Your task to perform on an android device: Search for hotels in Philadelphia Image 0: 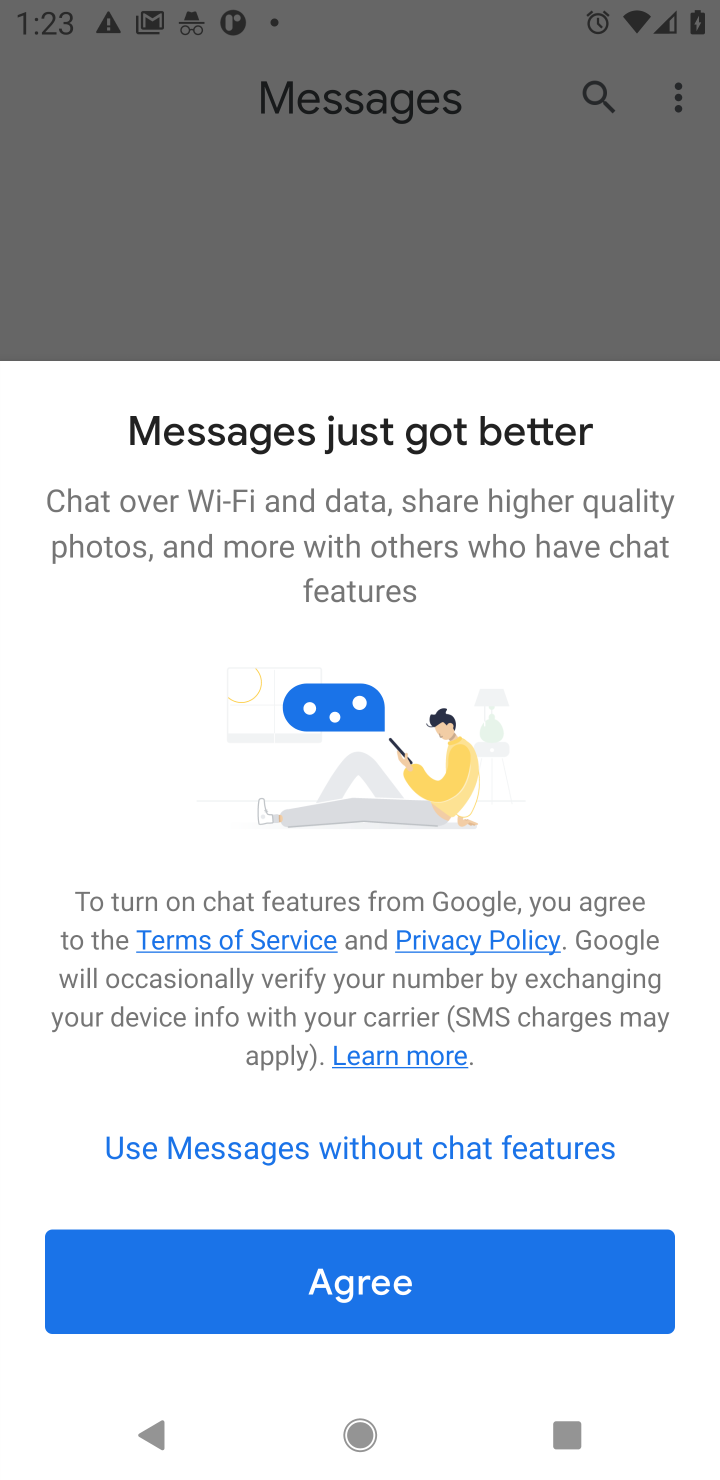
Step 0: press home button
Your task to perform on an android device: Search for hotels in Philadelphia Image 1: 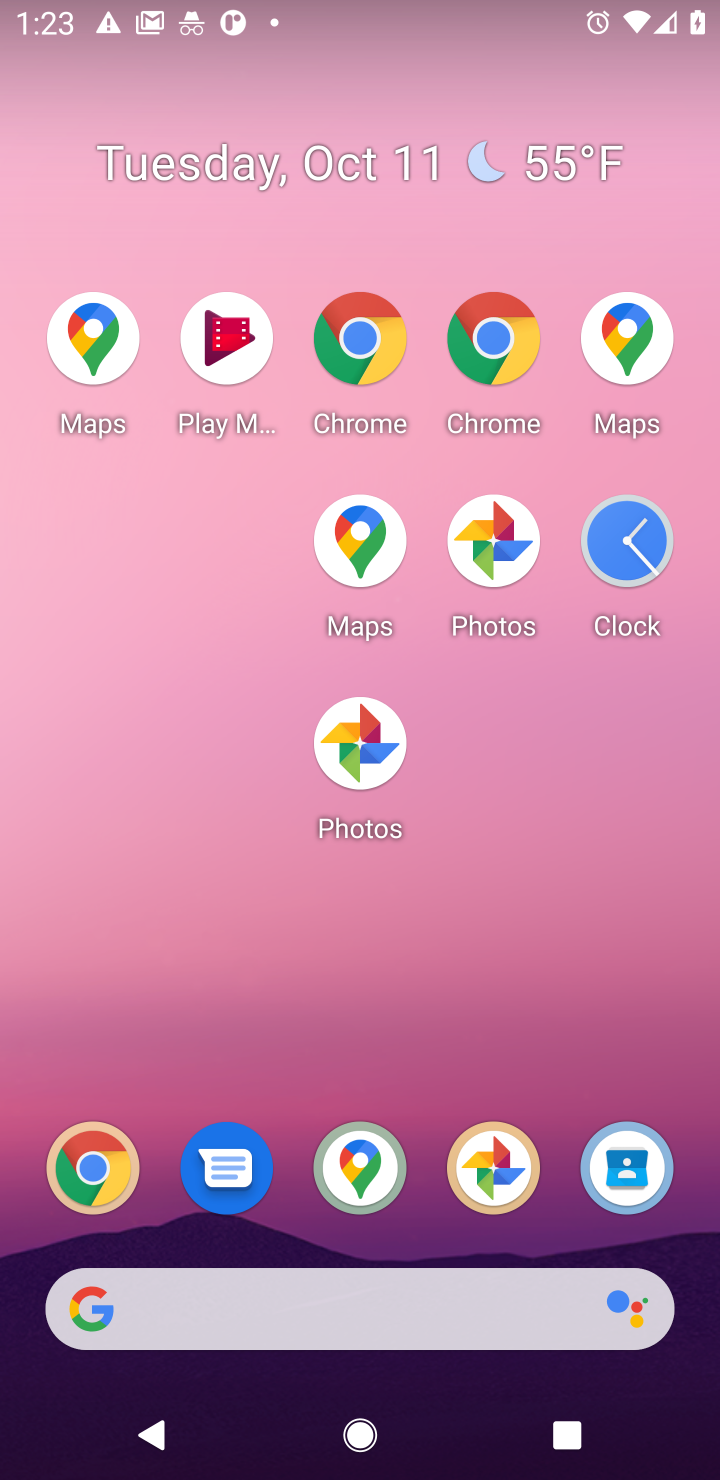
Step 1: click (556, 988)
Your task to perform on an android device: Search for hotels in Philadelphia Image 2: 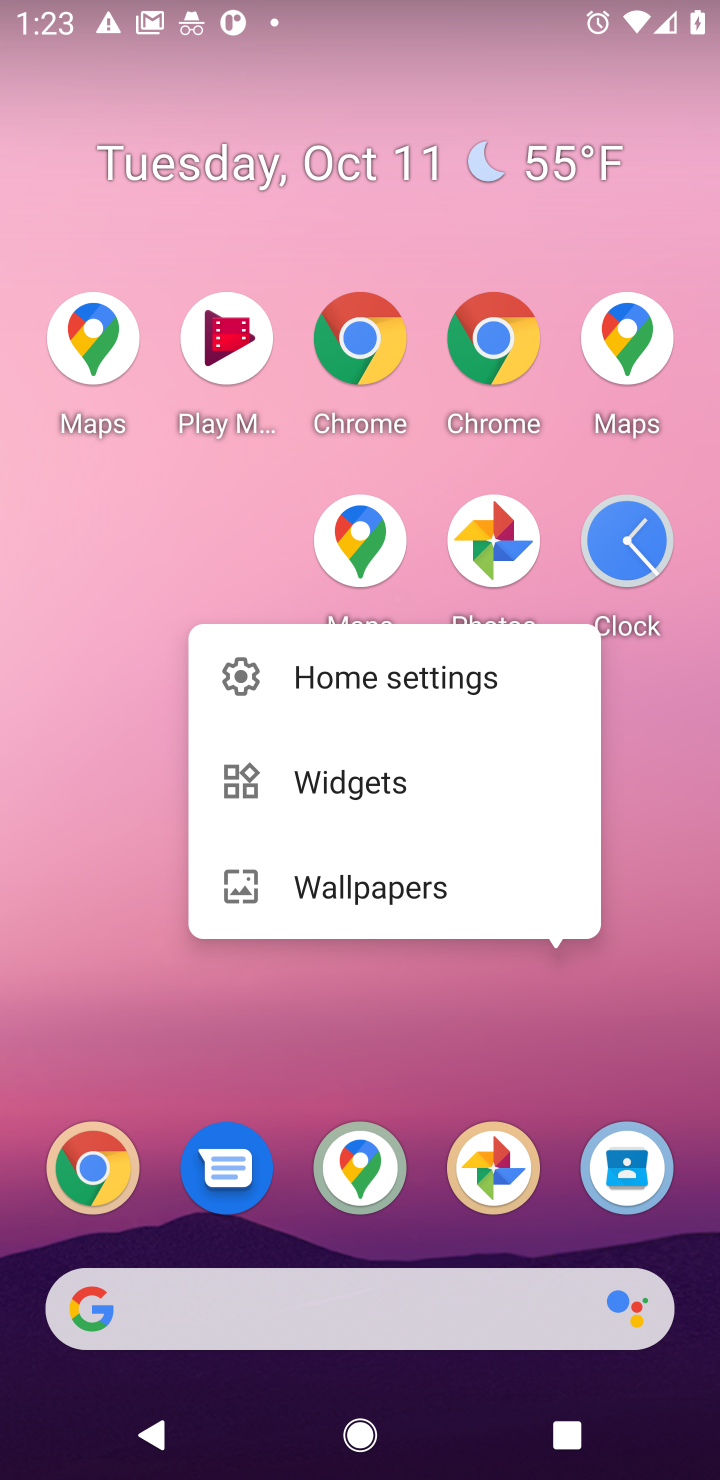
Step 2: click (172, 588)
Your task to perform on an android device: Search for hotels in Philadelphia Image 3: 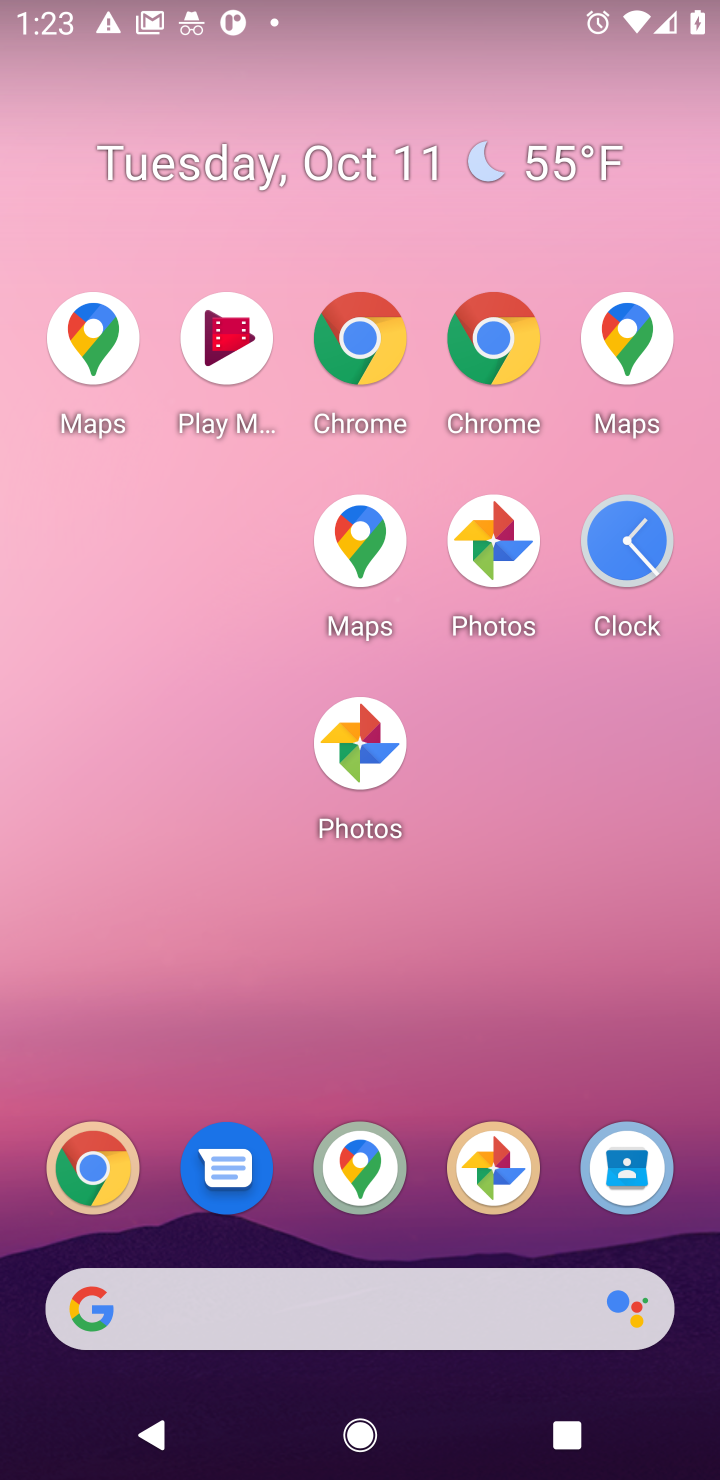
Step 3: drag from (443, 1030) to (596, 66)
Your task to perform on an android device: Search for hotels in Philadelphia Image 4: 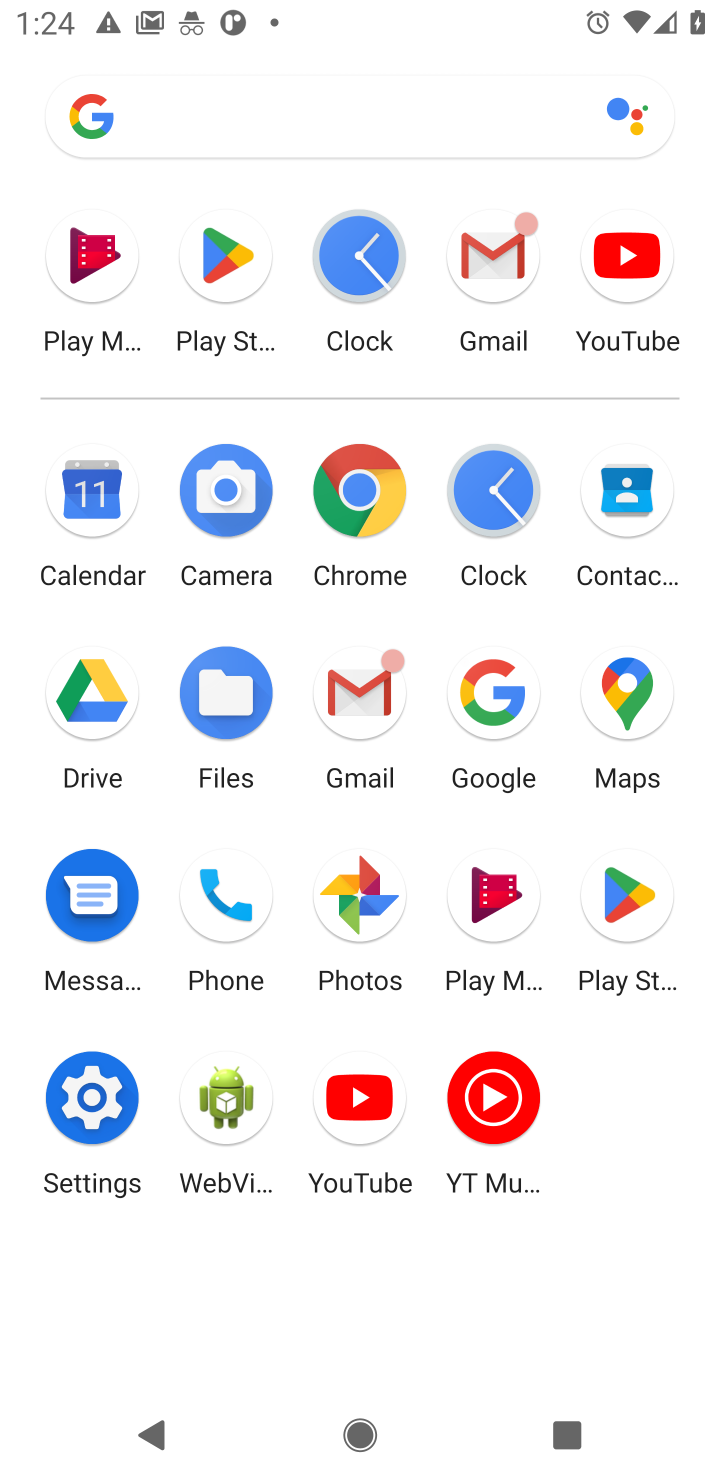
Step 4: click (505, 733)
Your task to perform on an android device: Search for hotels in Philadelphia Image 5: 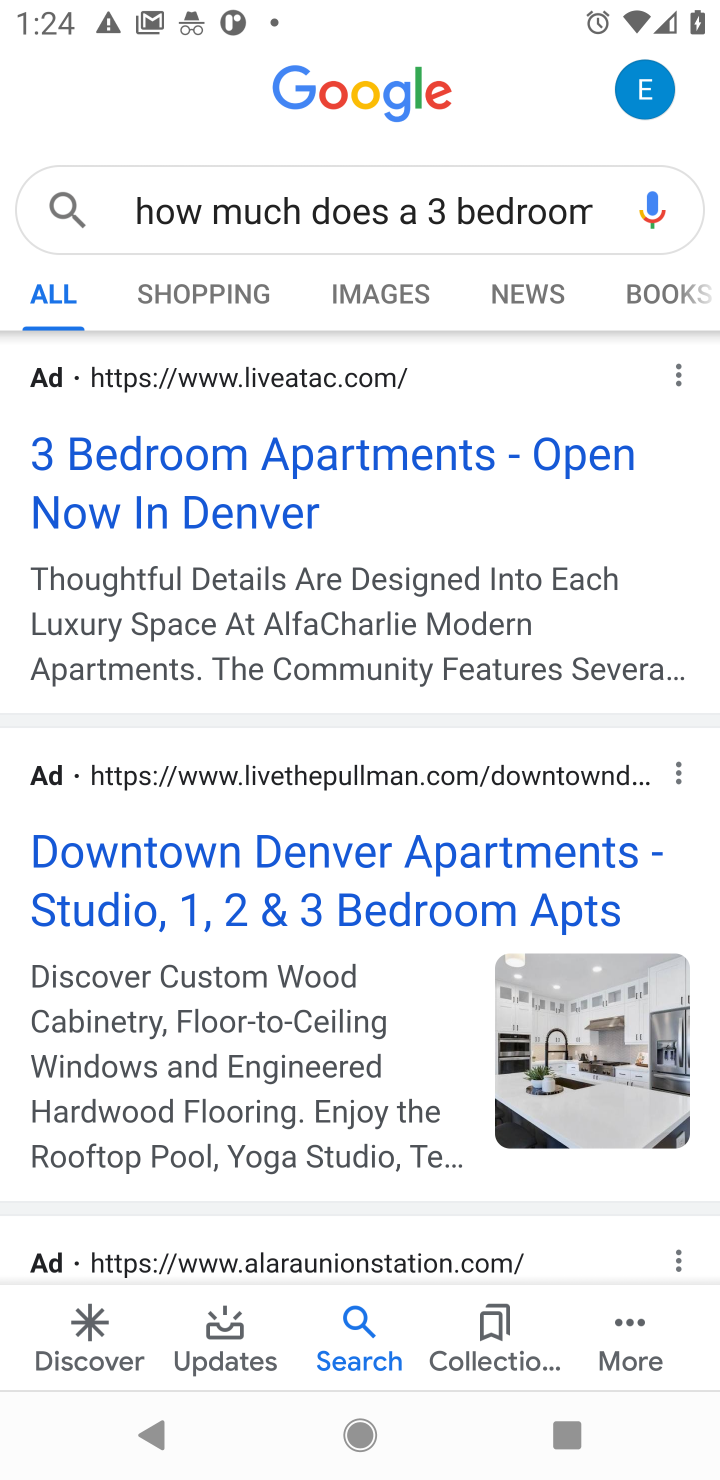
Step 5: click (503, 214)
Your task to perform on an android device: Search for hotels in Philadelphia Image 6: 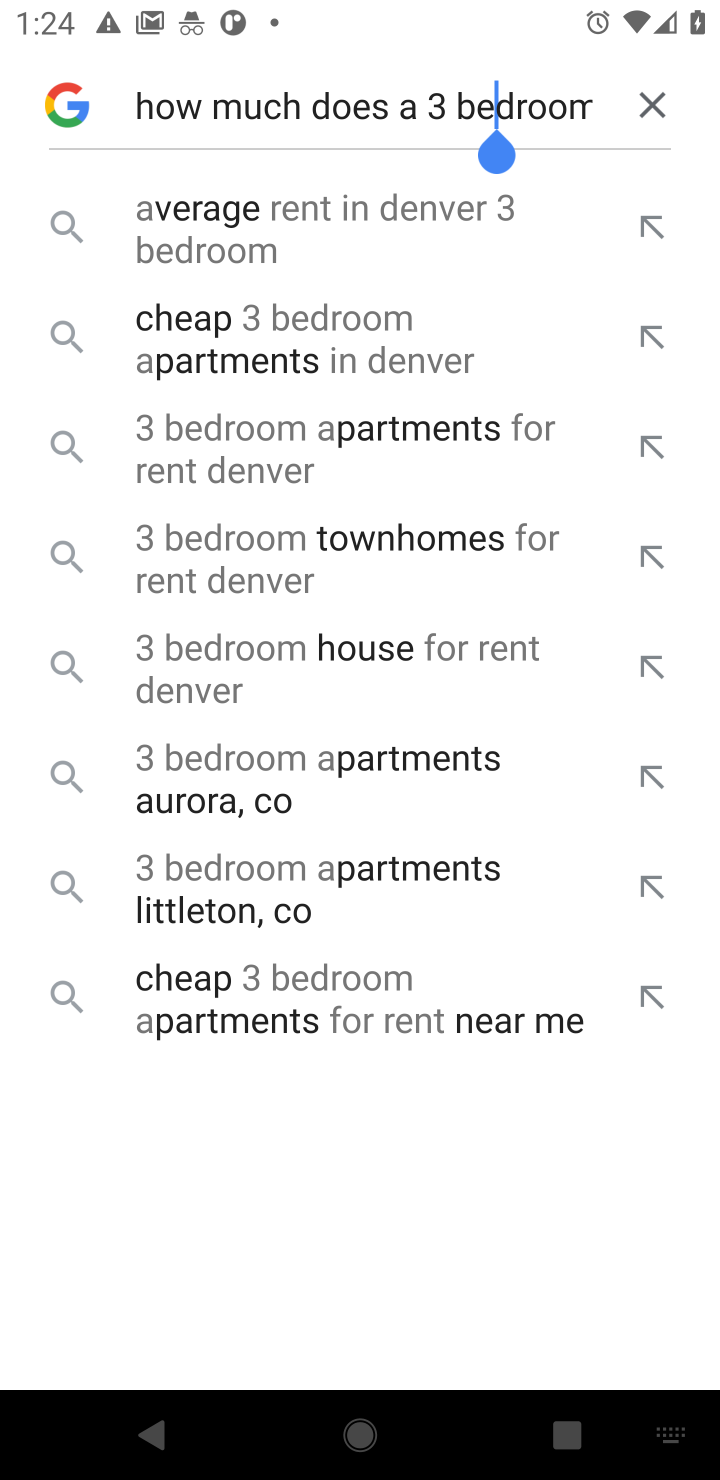
Step 6: click (660, 107)
Your task to perform on an android device: Search for hotels in Philadelphia Image 7: 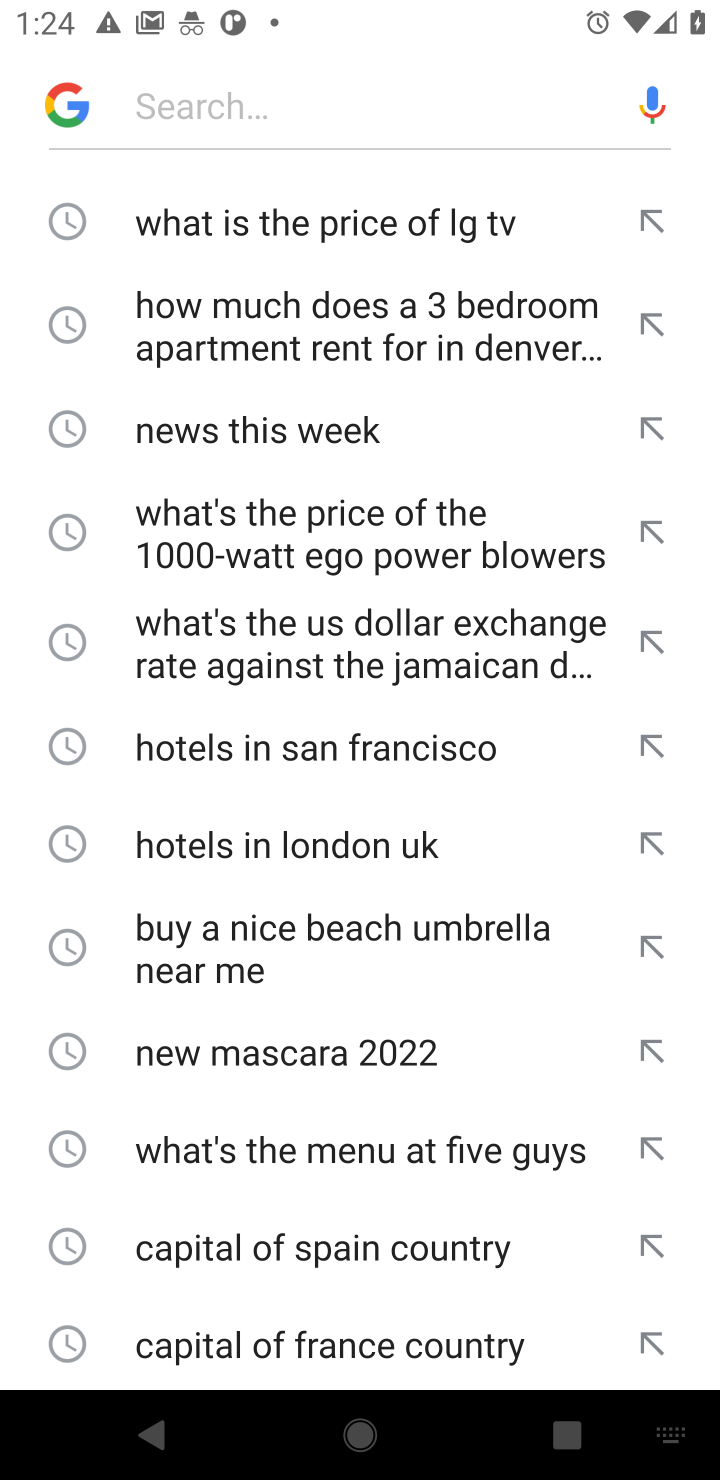
Step 7: type "hotels in Philadelphia"
Your task to perform on an android device: Search for hotels in Philadelphia Image 8: 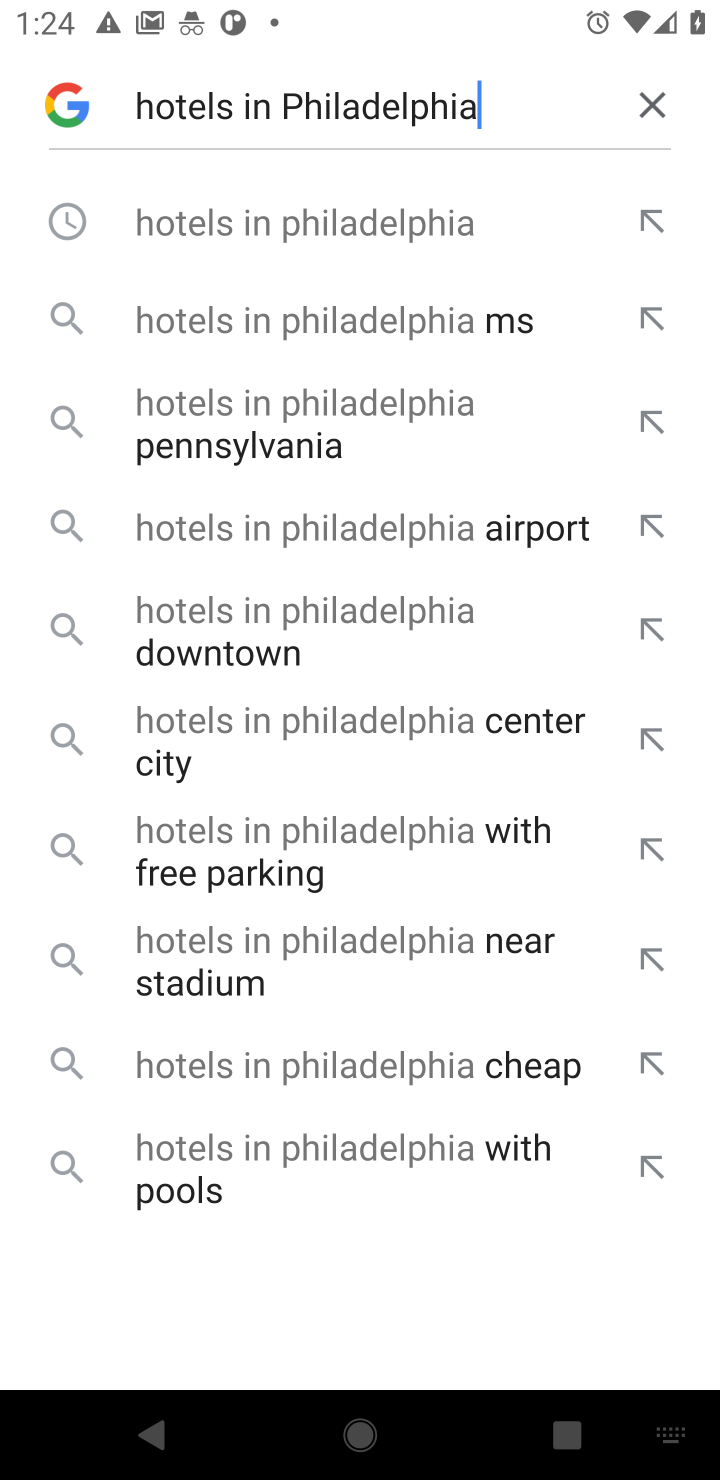
Step 8: click (323, 224)
Your task to perform on an android device: Search for hotels in Philadelphia Image 9: 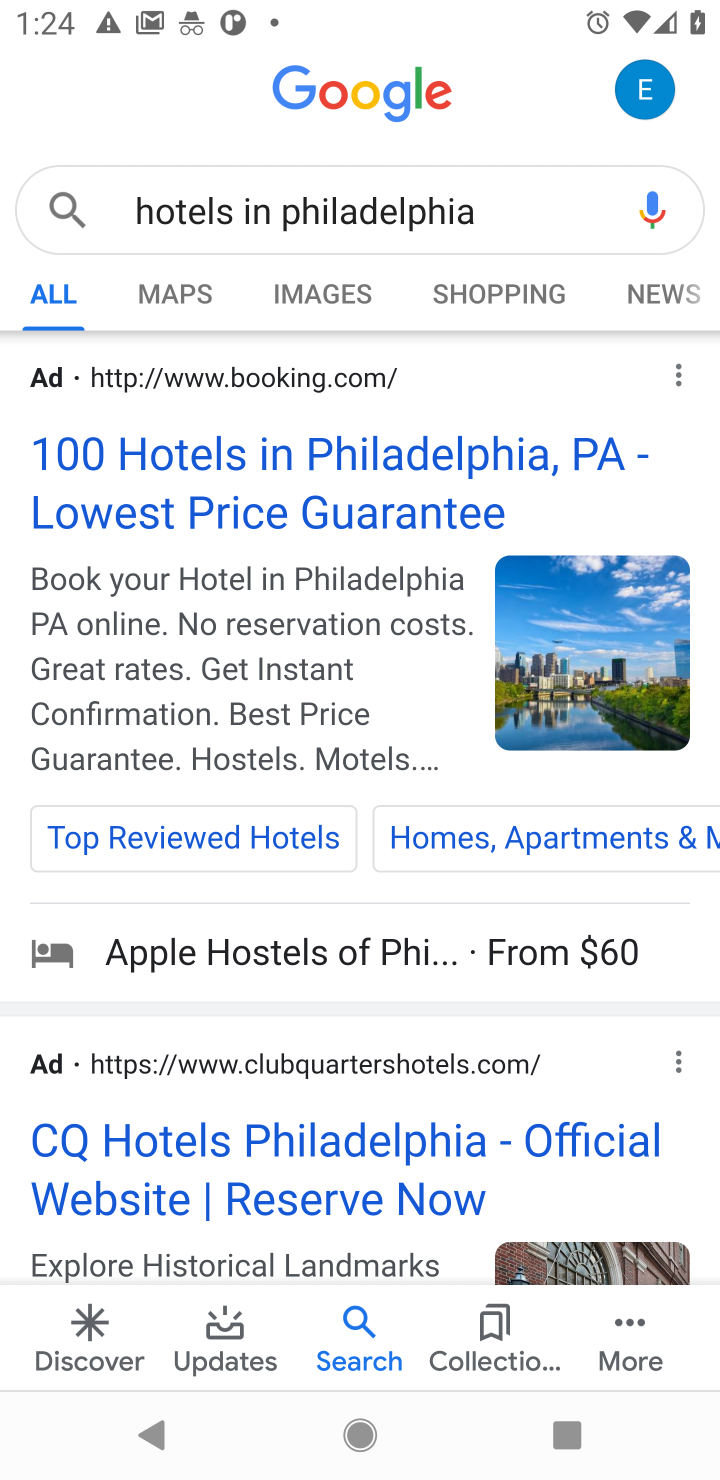
Step 9: task complete